Your task to perform on an android device: turn on translation in the chrome app Image 0: 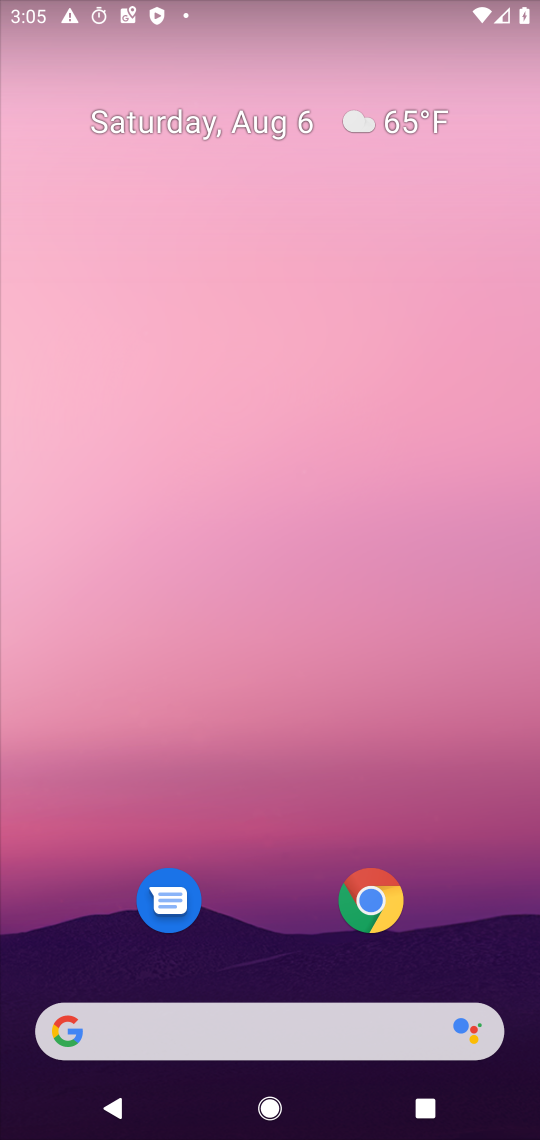
Step 0: press home button
Your task to perform on an android device: turn on translation in the chrome app Image 1: 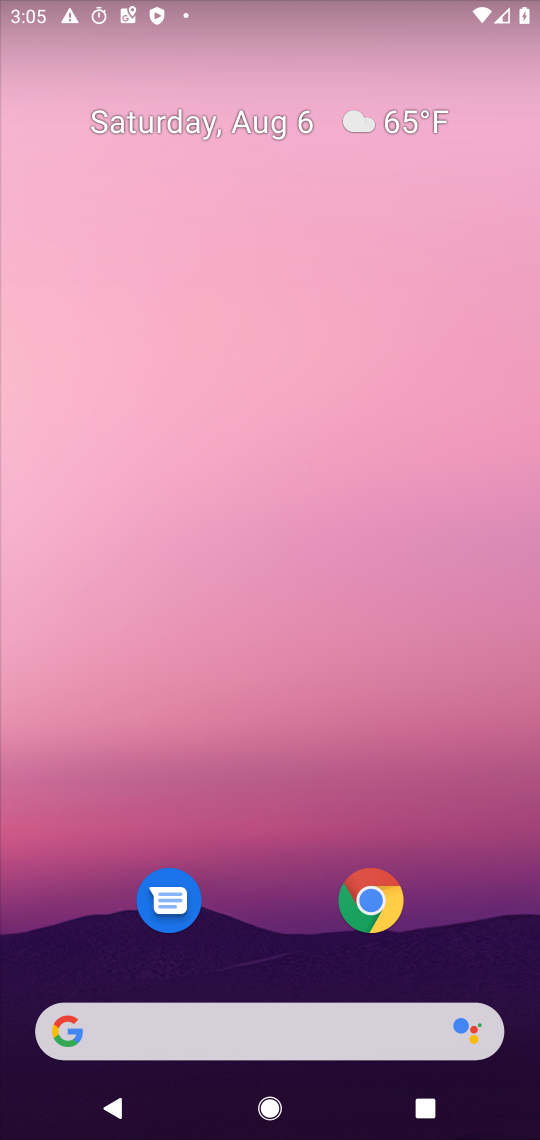
Step 1: click (369, 918)
Your task to perform on an android device: turn on translation in the chrome app Image 2: 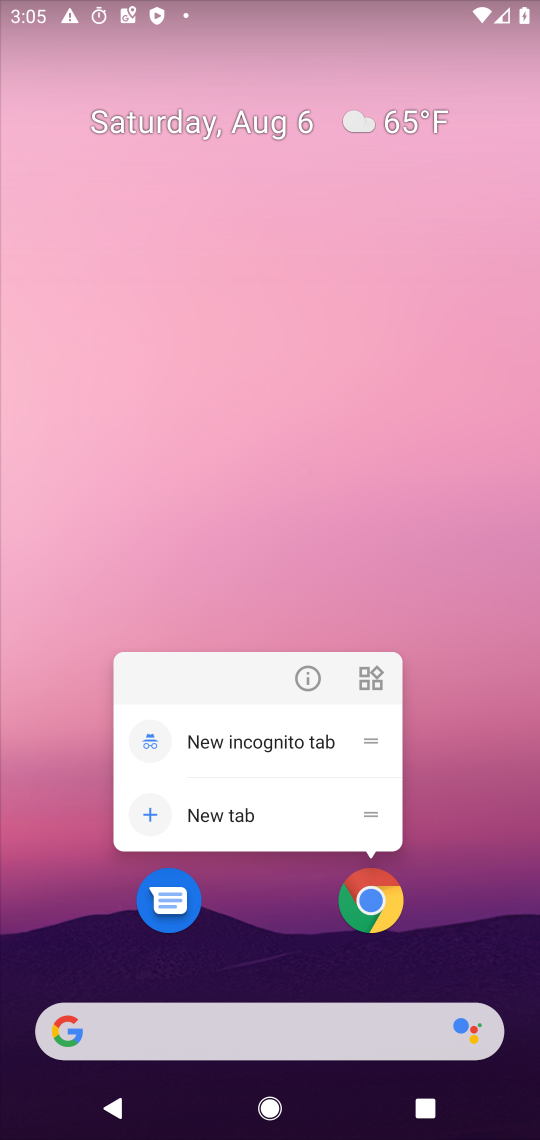
Step 2: click (360, 912)
Your task to perform on an android device: turn on translation in the chrome app Image 3: 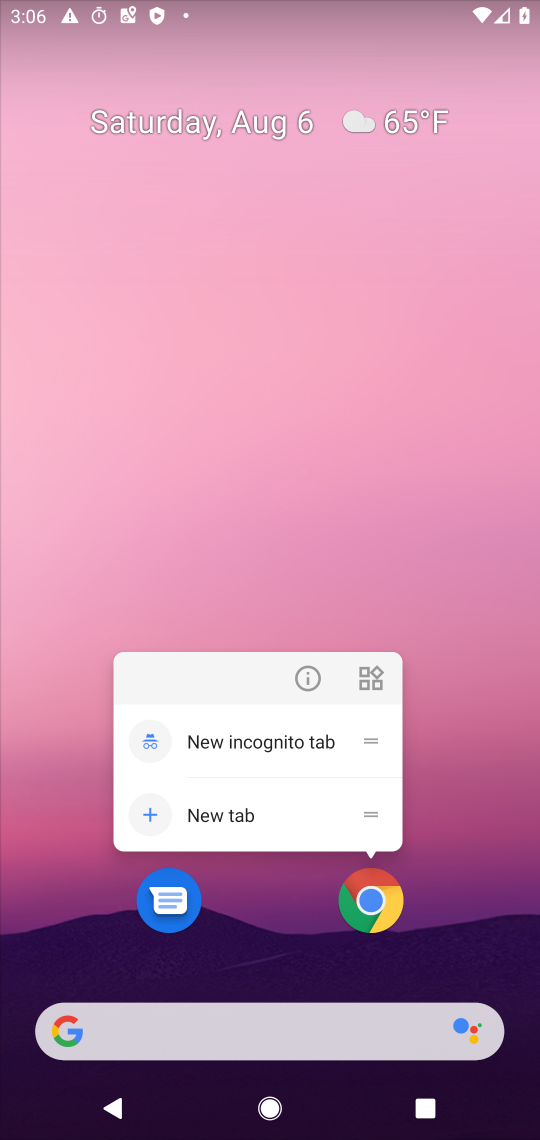
Step 3: click (374, 922)
Your task to perform on an android device: turn on translation in the chrome app Image 4: 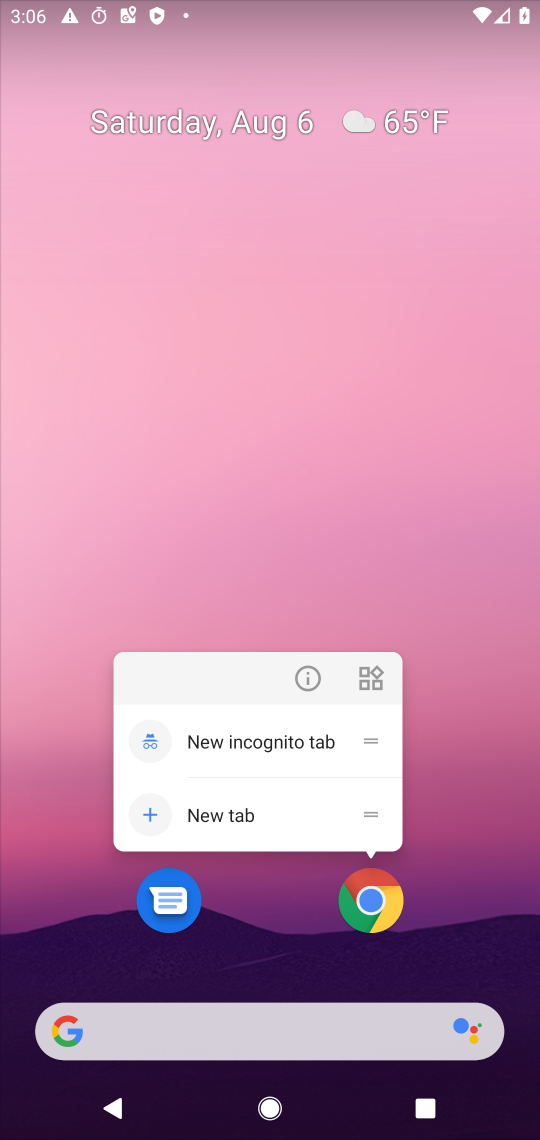
Step 4: click (369, 918)
Your task to perform on an android device: turn on translation in the chrome app Image 5: 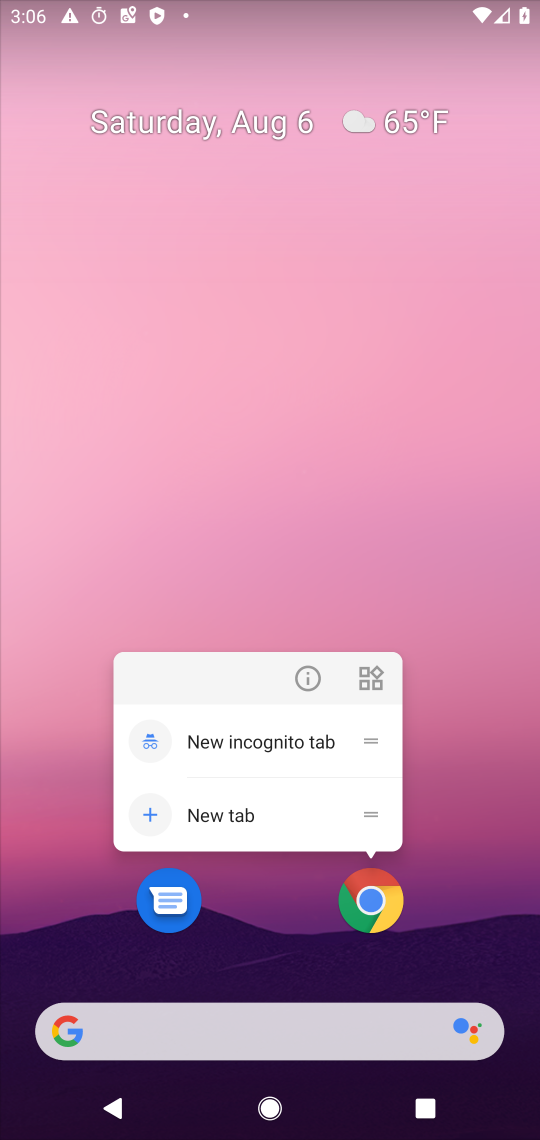
Step 5: click (367, 915)
Your task to perform on an android device: turn on translation in the chrome app Image 6: 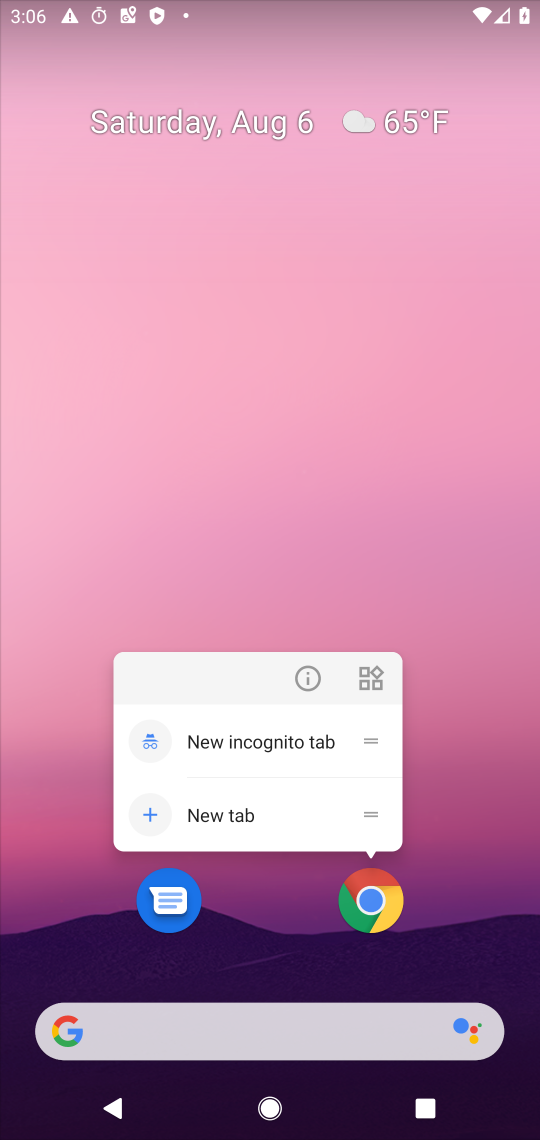
Step 6: click (362, 911)
Your task to perform on an android device: turn on translation in the chrome app Image 7: 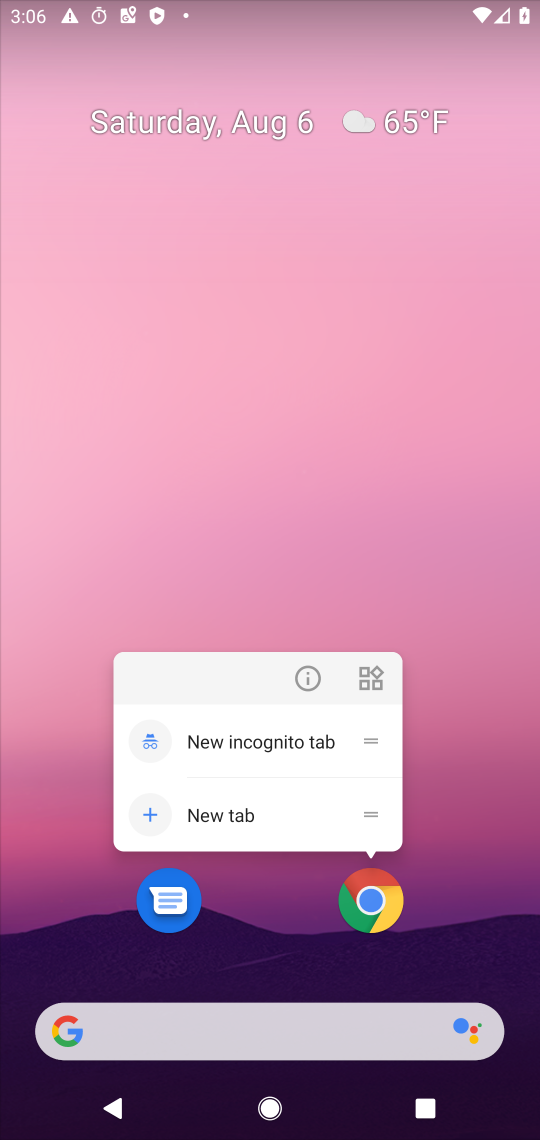
Step 7: click (383, 902)
Your task to perform on an android device: turn on translation in the chrome app Image 8: 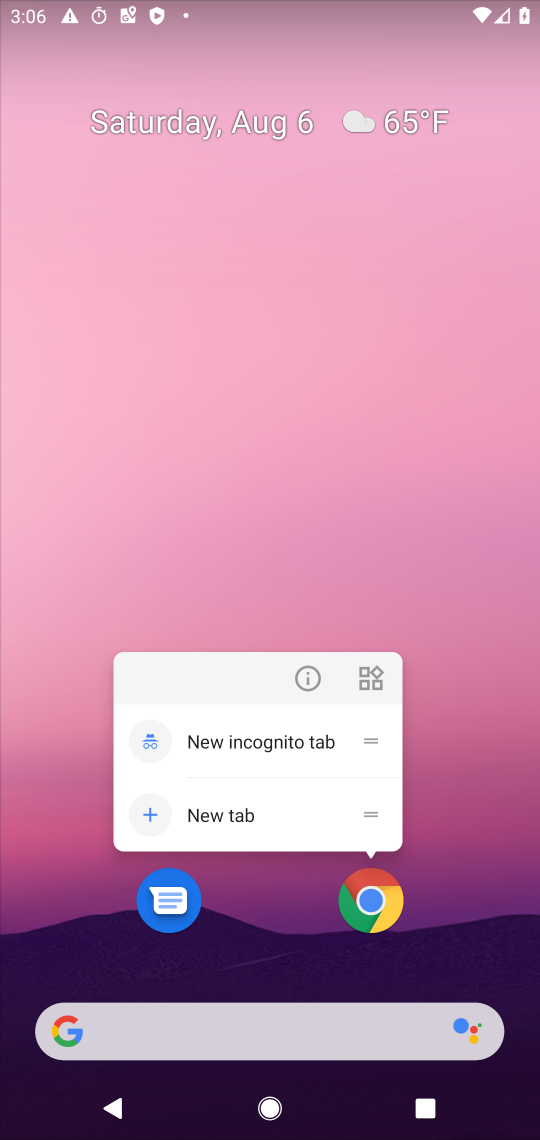
Step 8: click (384, 902)
Your task to perform on an android device: turn on translation in the chrome app Image 9: 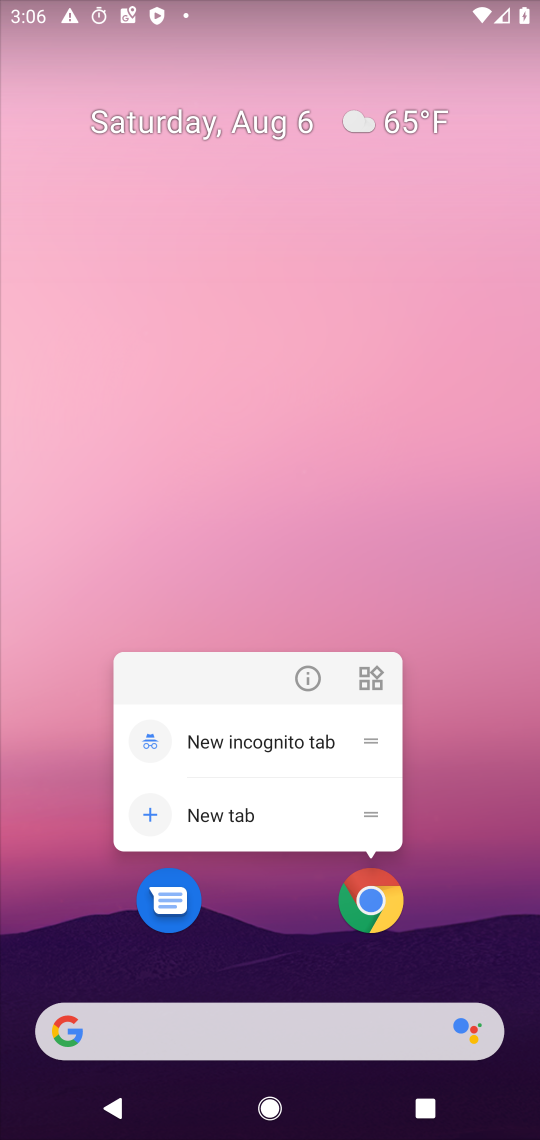
Step 9: drag from (270, 874) to (247, 236)
Your task to perform on an android device: turn on translation in the chrome app Image 10: 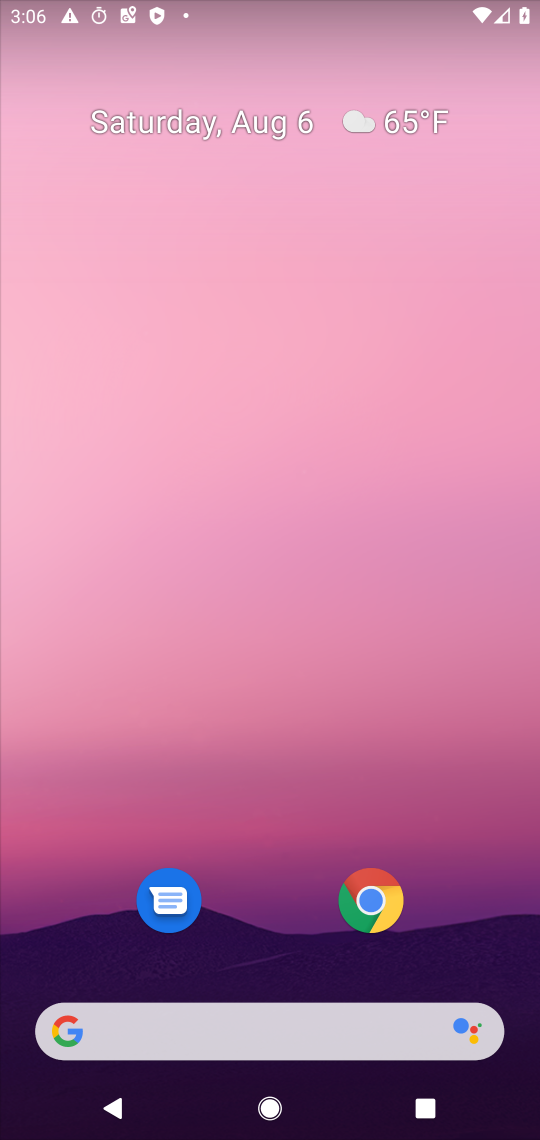
Step 10: drag from (264, 881) to (422, 1)
Your task to perform on an android device: turn on translation in the chrome app Image 11: 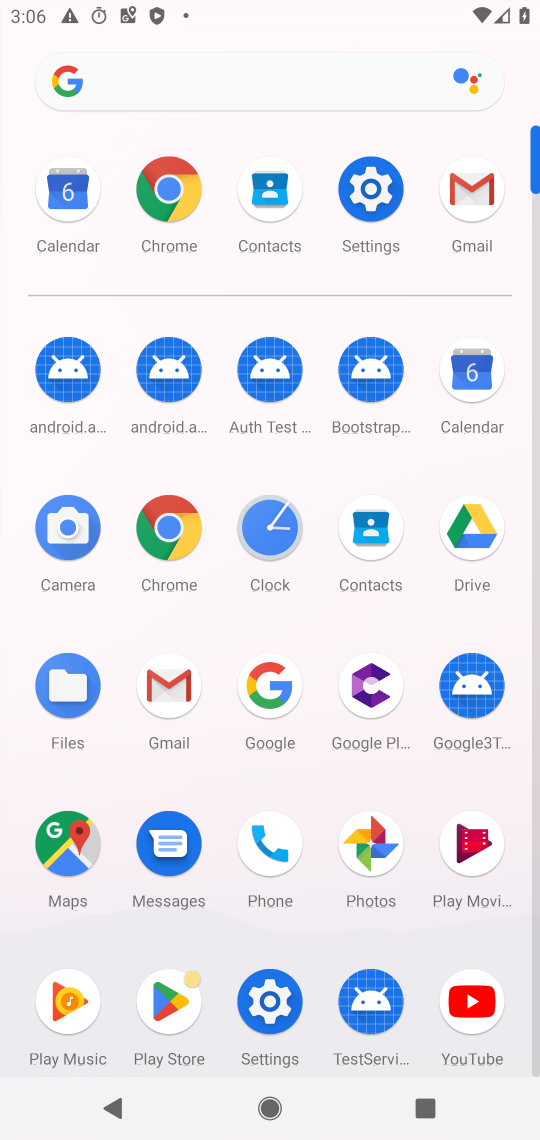
Step 11: click (156, 275)
Your task to perform on an android device: turn on translation in the chrome app Image 12: 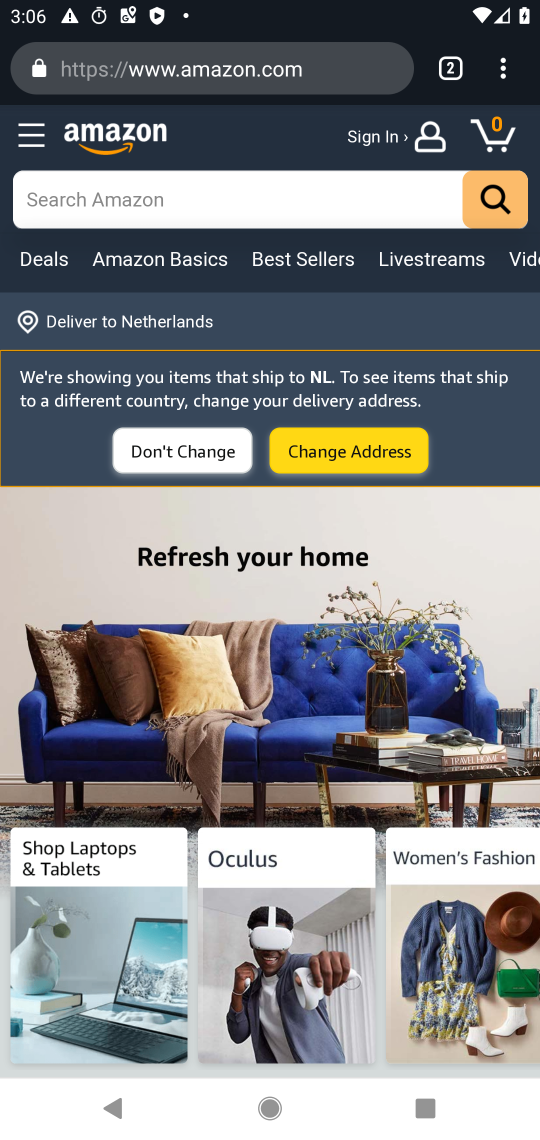
Step 12: drag from (506, 71) to (296, 834)
Your task to perform on an android device: turn on translation in the chrome app Image 13: 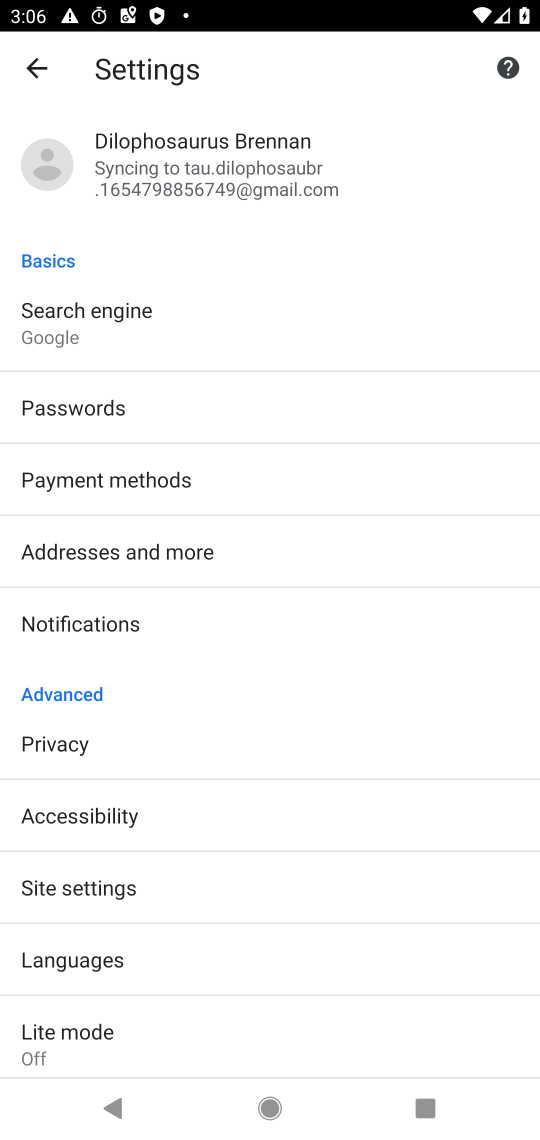
Step 13: click (72, 971)
Your task to perform on an android device: turn on translation in the chrome app Image 14: 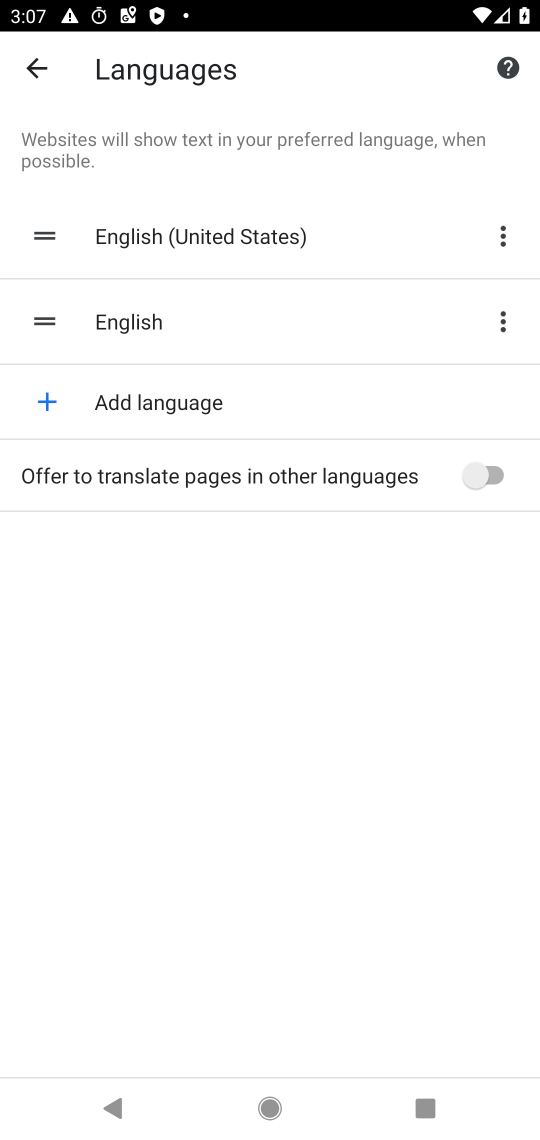
Step 14: click (480, 468)
Your task to perform on an android device: turn on translation in the chrome app Image 15: 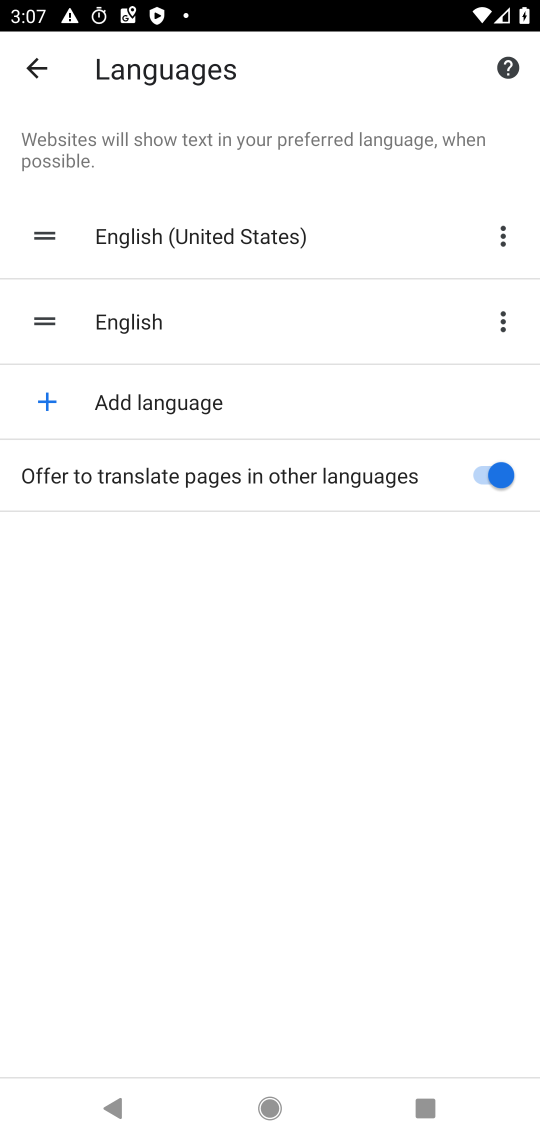
Step 15: task complete